Your task to perform on an android device: turn off sleep mode Image 0: 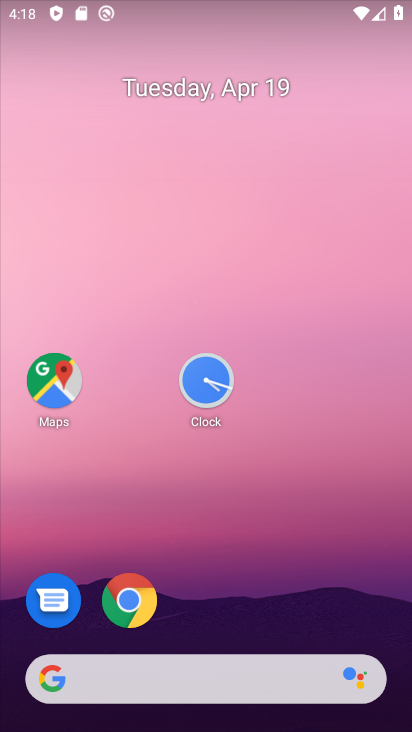
Step 0: drag from (304, 616) to (125, 128)
Your task to perform on an android device: turn off sleep mode Image 1: 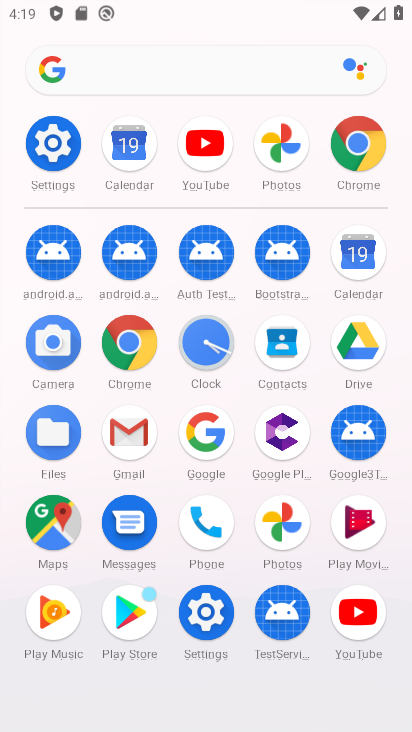
Step 1: click (40, 157)
Your task to perform on an android device: turn off sleep mode Image 2: 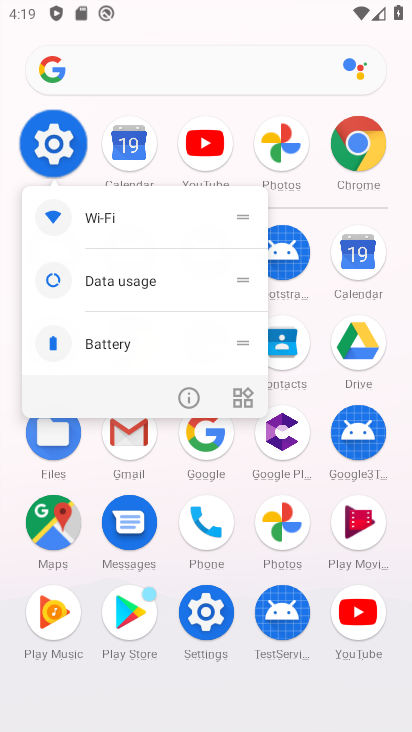
Step 2: click (40, 157)
Your task to perform on an android device: turn off sleep mode Image 3: 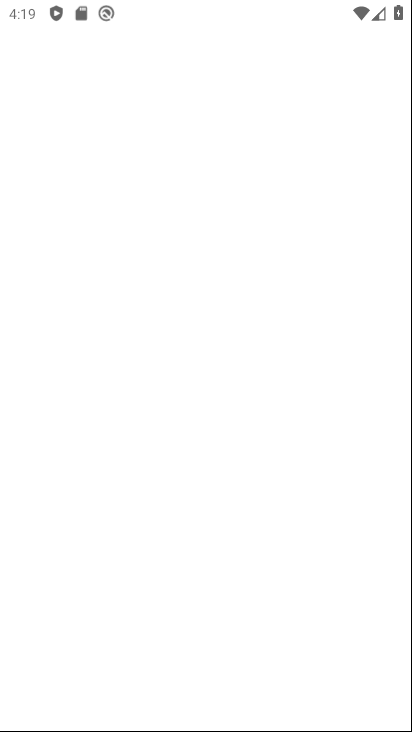
Step 3: click (41, 156)
Your task to perform on an android device: turn off sleep mode Image 4: 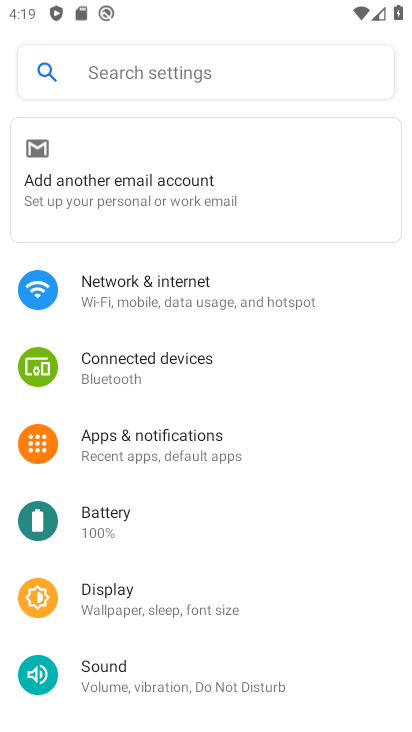
Step 4: click (111, 601)
Your task to perform on an android device: turn off sleep mode Image 5: 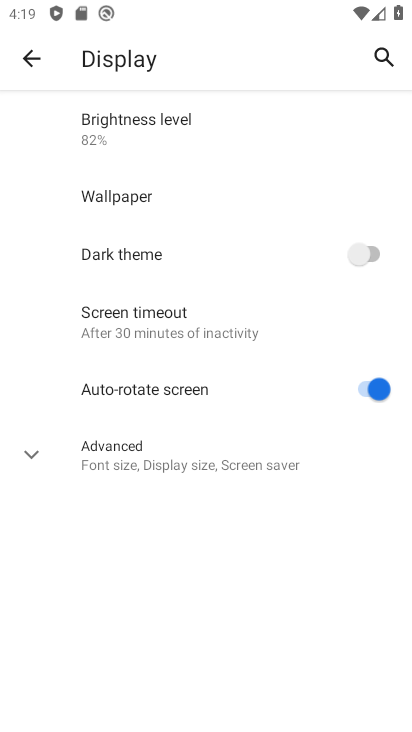
Step 5: task complete